Your task to perform on an android device: turn smart compose on in the gmail app Image 0: 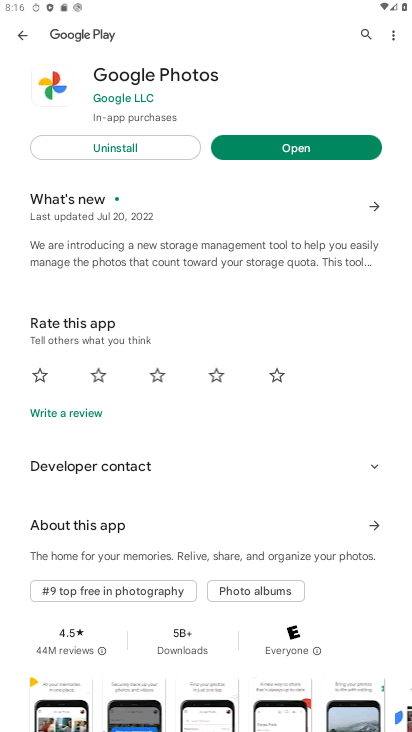
Step 0: press back button
Your task to perform on an android device: turn smart compose on in the gmail app Image 1: 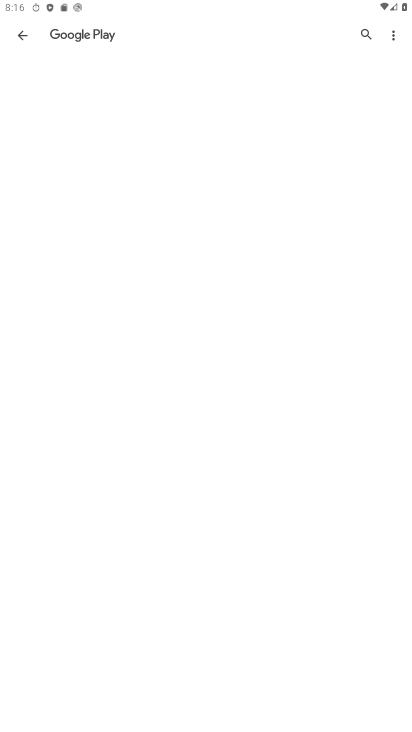
Step 1: press back button
Your task to perform on an android device: turn smart compose on in the gmail app Image 2: 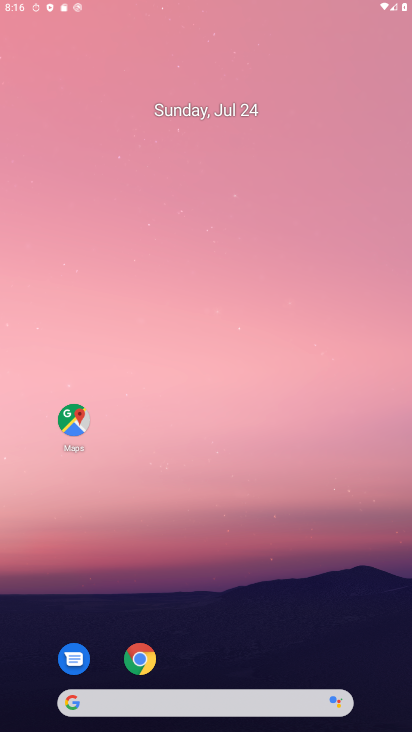
Step 2: press back button
Your task to perform on an android device: turn smart compose on in the gmail app Image 3: 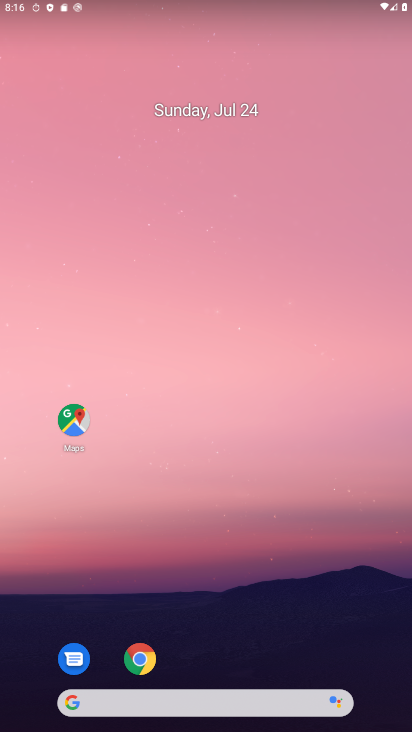
Step 3: drag from (189, 705) to (207, 47)
Your task to perform on an android device: turn smart compose on in the gmail app Image 4: 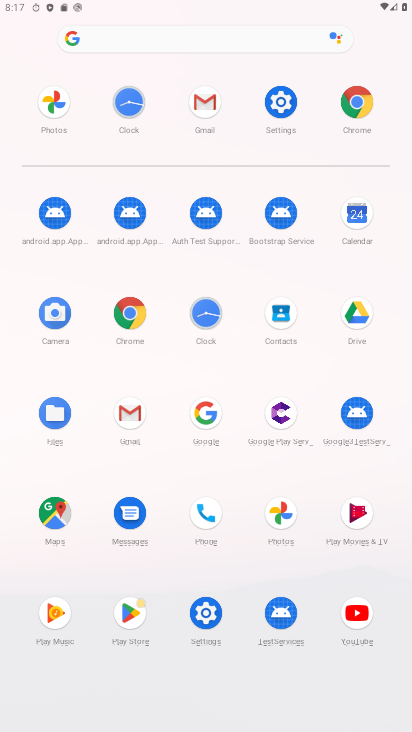
Step 4: click (130, 412)
Your task to perform on an android device: turn smart compose on in the gmail app Image 5: 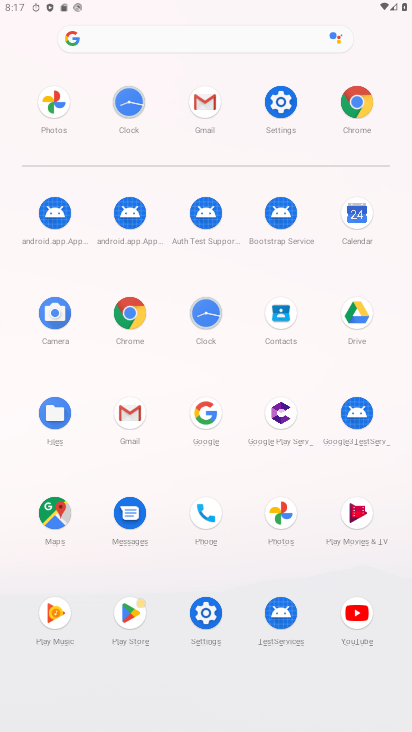
Step 5: click (135, 413)
Your task to perform on an android device: turn smart compose on in the gmail app Image 6: 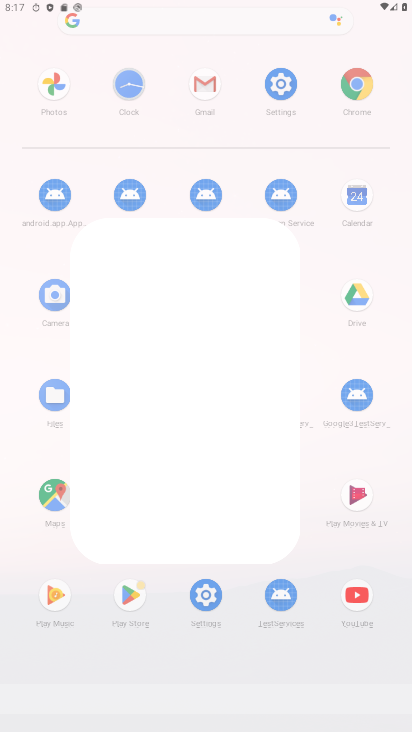
Step 6: click (137, 414)
Your task to perform on an android device: turn smart compose on in the gmail app Image 7: 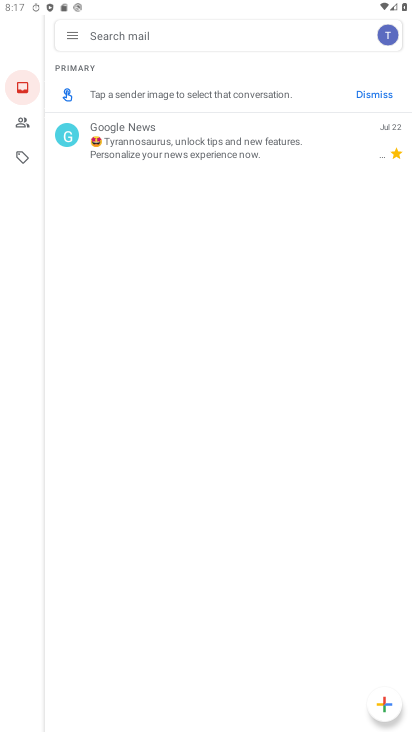
Step 7: click (77, 46)
Your task to perform on an android device: turn smart compose on in the gmail app Image 8: 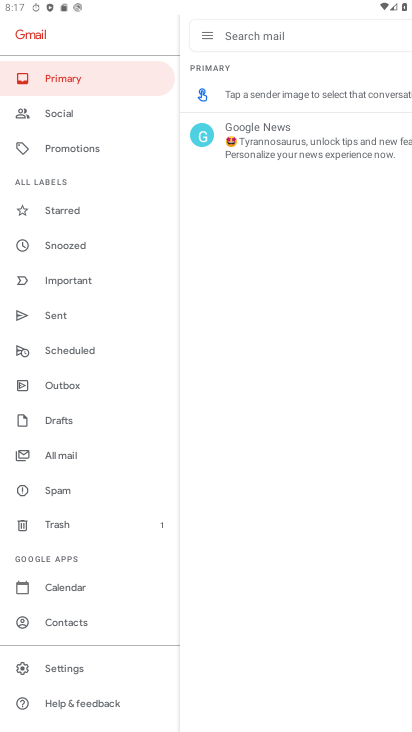
Step 8: click (80, 673)
Your task to perform on an android device: turn smart compose on in the gmail app Image 9: 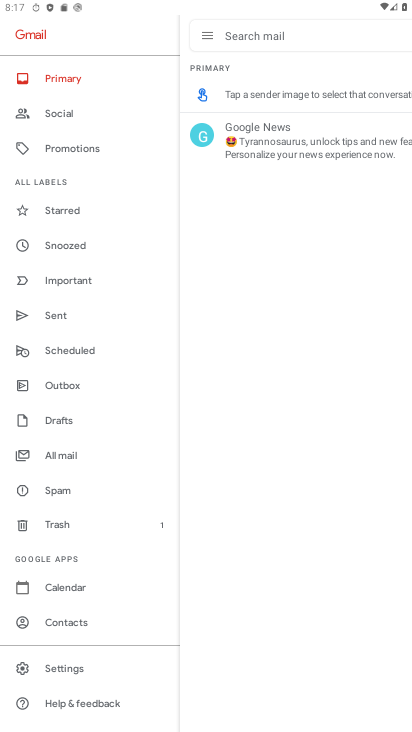
Step 9: click (81, 671)
Your task to perform on an android device: turn smart compose on in the gmail app Image 10: 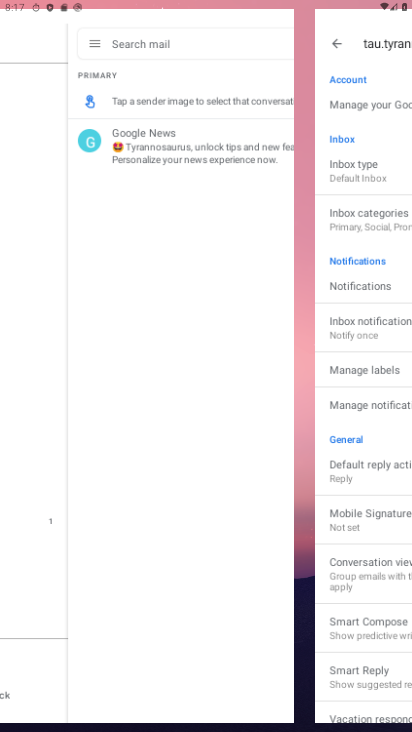
Step 10: click (83, 671)
Your task to perform on an android device: turn smart compose on in the gmail app Image 11: 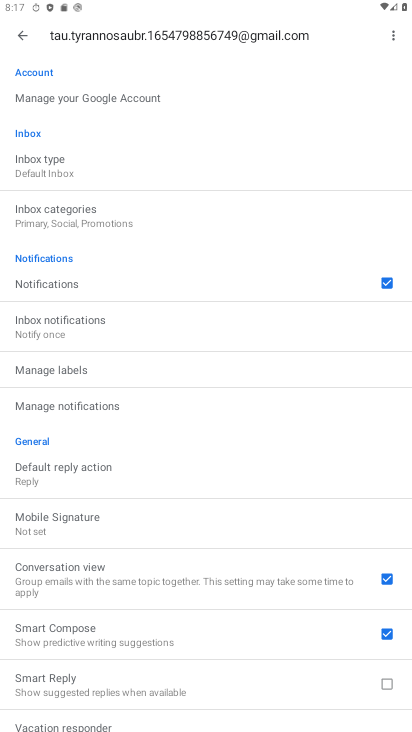
Step 11: click (91, 629)
Your task to perform on an android device: turn smart compose on in the gmail app Image 12: 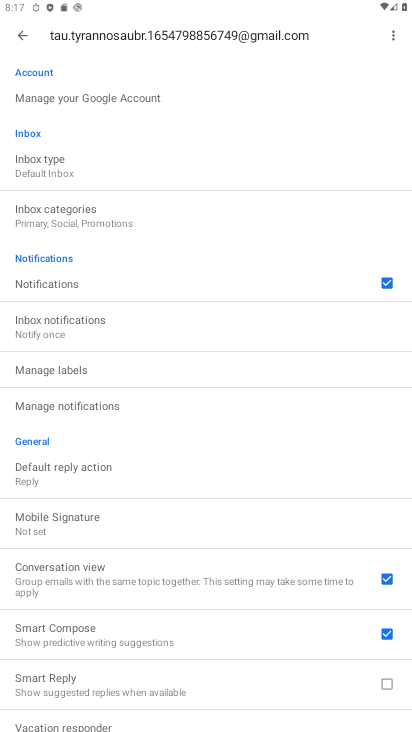
Step 12: click (78, 637)
Your task to perform on an android device: turn smart compose on in the gmail app Image 13: 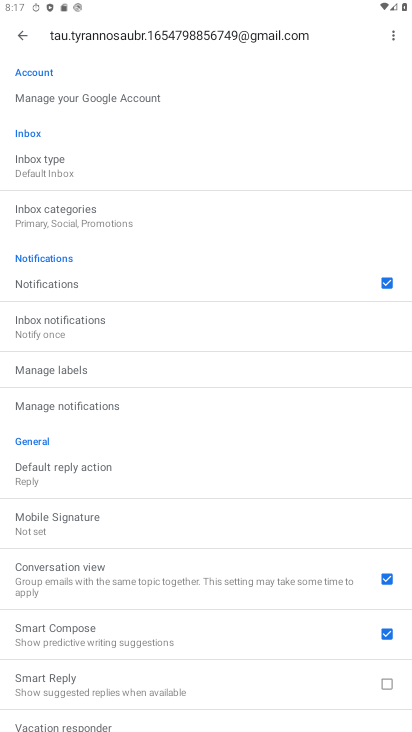
Step 13: click (77, 639)
Your task to perform on an android device: turn smart compose on in the gmail app Image 14: 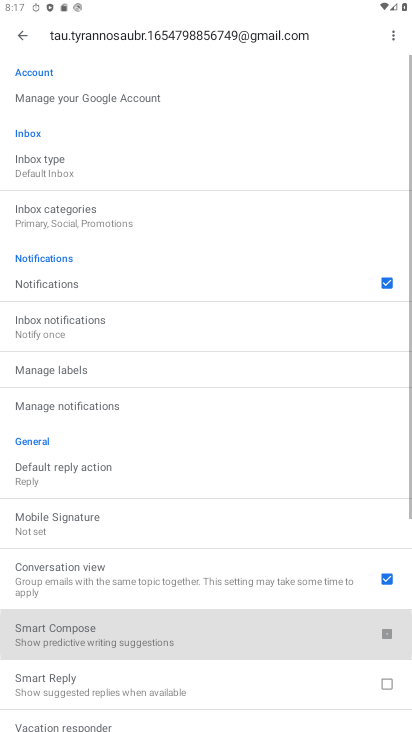
Step 14: click (79, 640)
Your task to perform on an android device: turn smart compose on in the gmail app Image 15: 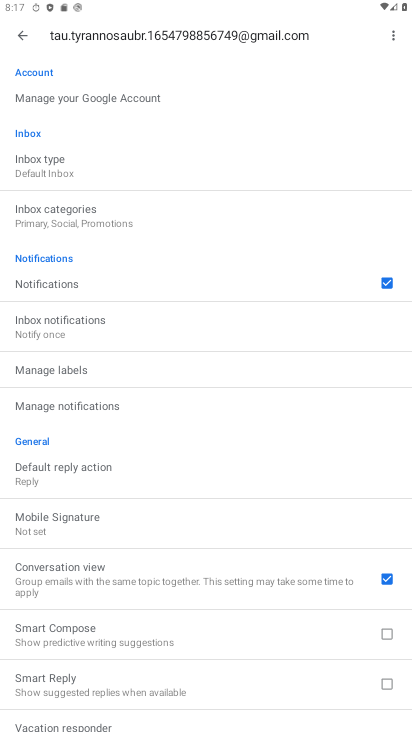
Step 15: click (384, 641)
Your task to perform on an android device: turn smart compose on in the gmail app Image 16: 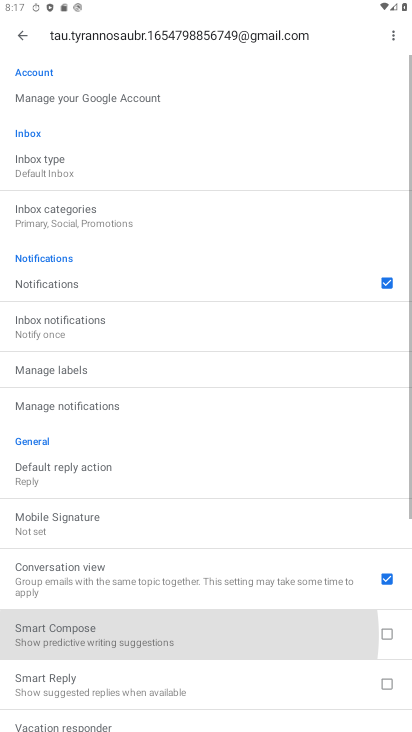
Step 16: click (384, 638)
Your task to perform on an android device: turn smart compose on in the gmail app Image 17: 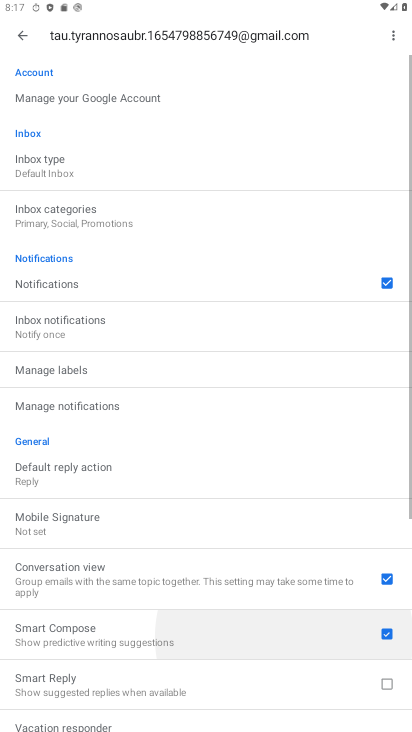
Step 17: click (384, 638)
Your task to perform on an android device: turn smart compose on in the gmail app Image 18: 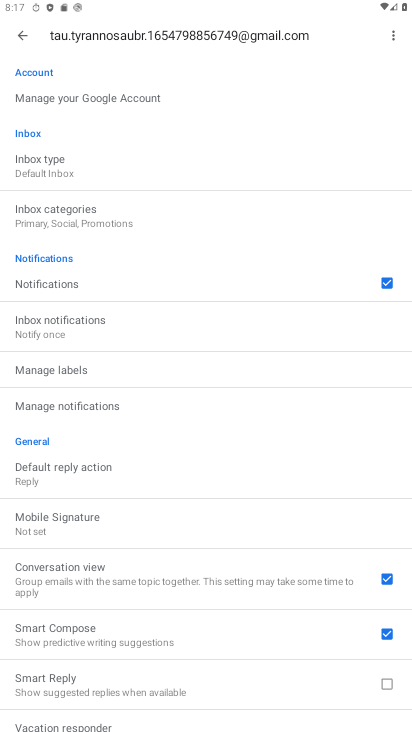
Step 18: task complete